Your task to perform on an android device: open a new tab in the chrome app Image 0: 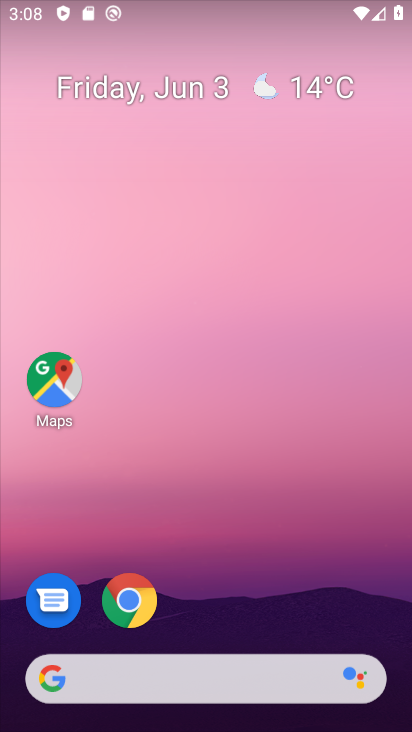
Step 0: click (133, 617)
Your task to perform on an android device: open a new tab in the chrome app Image 1: 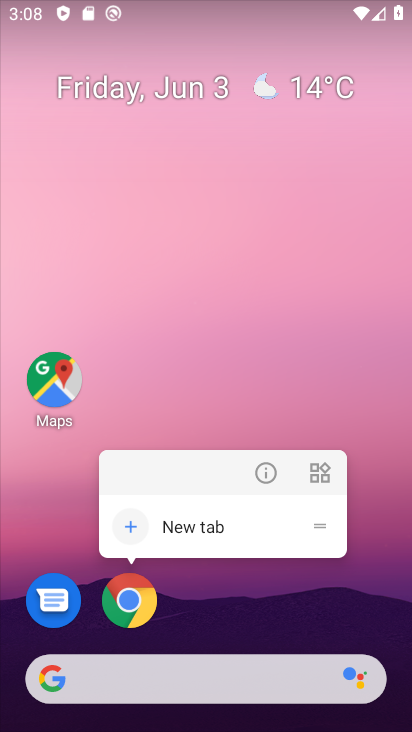
Step 1: click (133, 616)
Your task to perform on an android device: open a new tab in the chrome app Image 2: 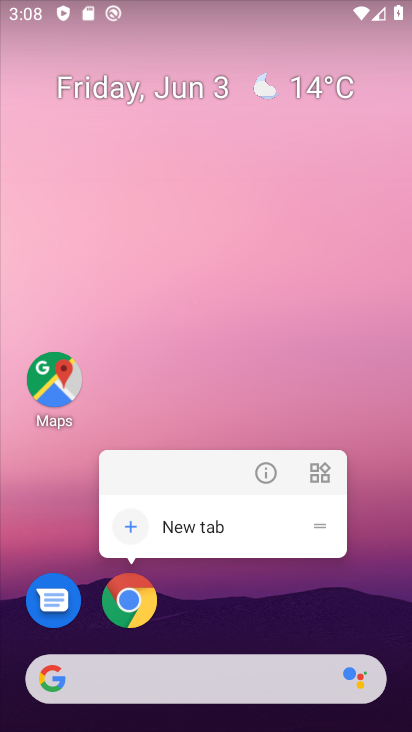
Step 2: click (133, 608)
Your task to perform on an android device: open a new tab in the chrome app Image 3: 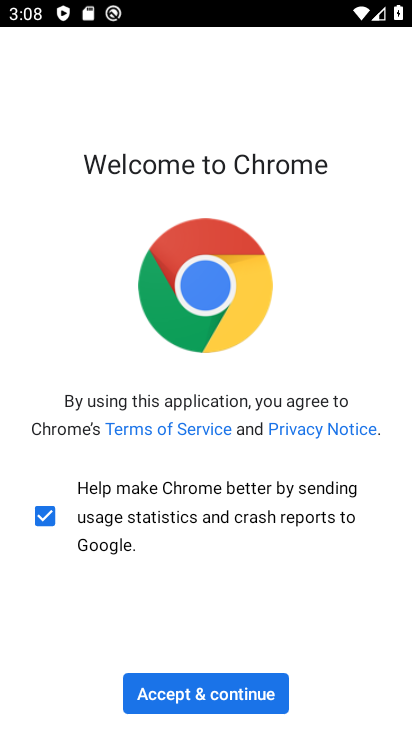
Step 3: click (208, 700)
Your task to perform on an android device: open a new tab in the chrome app Image 4: 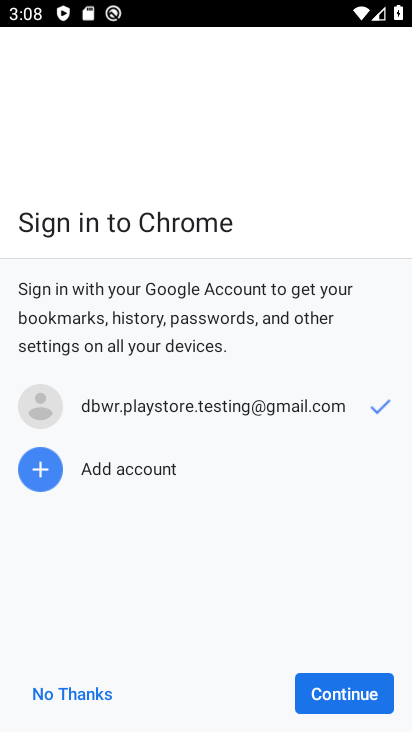
Step 4: click (335, 712)
Your task to perform on an android device: open a new tab in the chrome app Image 5: 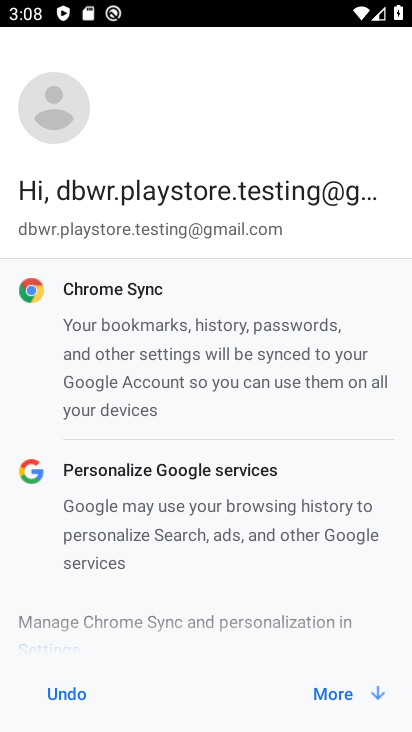
Step 5: click (333, 699)
Your task to perform on an android device: open a new tab in the chrome app Image 6: 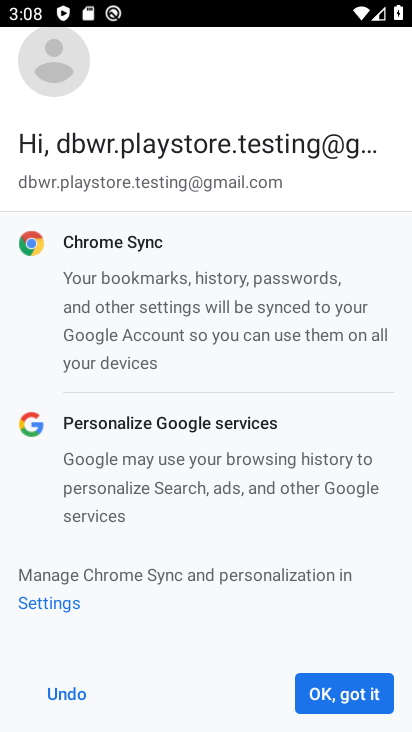
Step 6: click (349, 695)
Your task to perform on an android device: open a new tab in the chrome app Image 7: 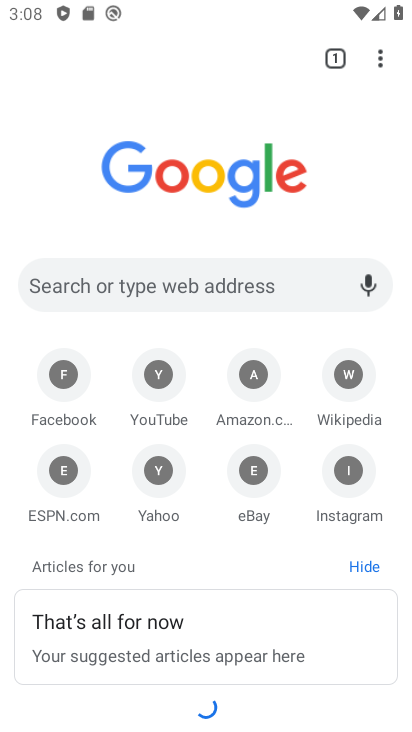
Step 7: task complete